Your task to perform on an android device: check data usage Image 0: 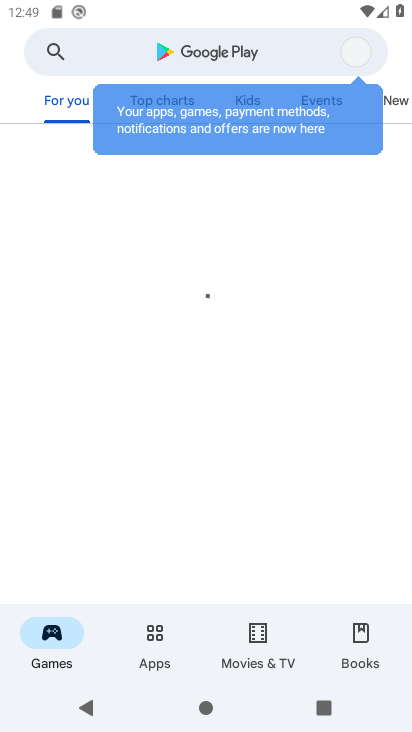
Step 0: press home button
Your task to perform on an android device: check data usage Image 1: 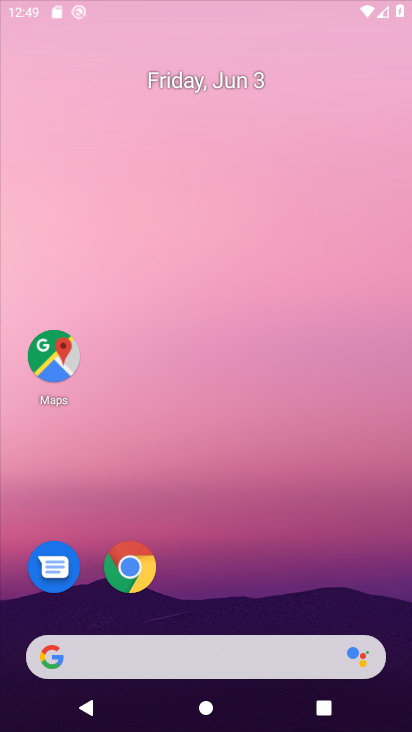
Step 1: click (258, 176)
Your task to perform on an android device: check data usage Image 2: 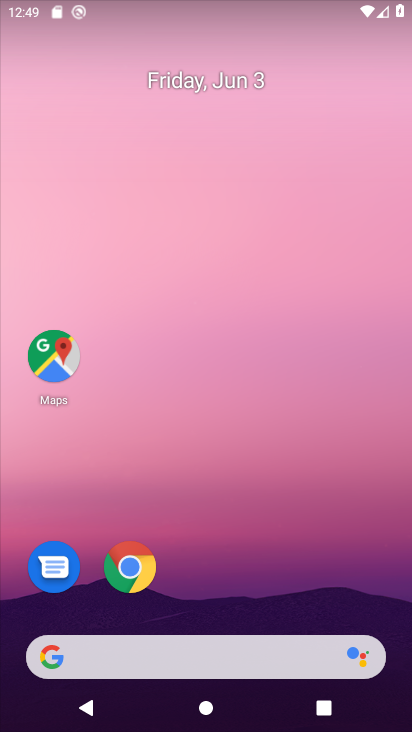
Step 2: drag from (213, 666) to (210, 262)
Your task to perform on an android device: check data usage Image 3: 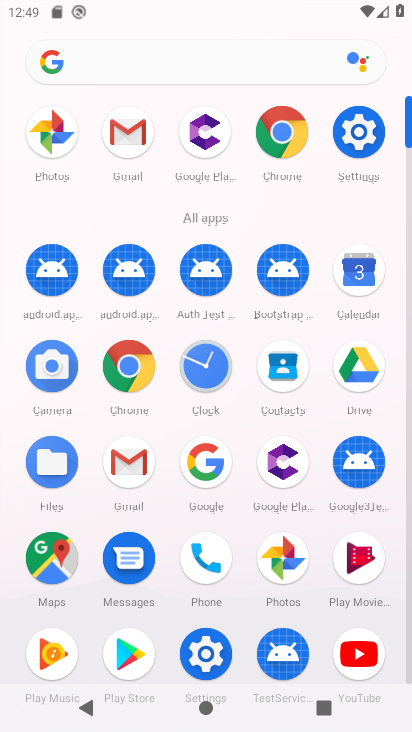
Step 3: click (352, 123)
Your task to perform on an android device: check data usage Image 4: 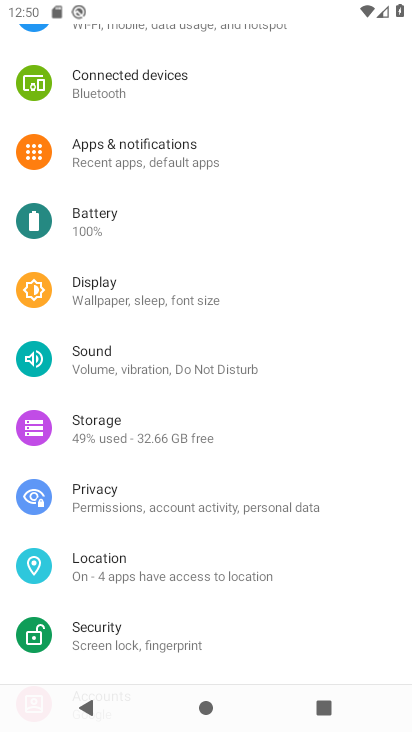
Step 4: drag from (169, 84) to (240, 533)
Your task to perform on an android device: check data usage Image 5: 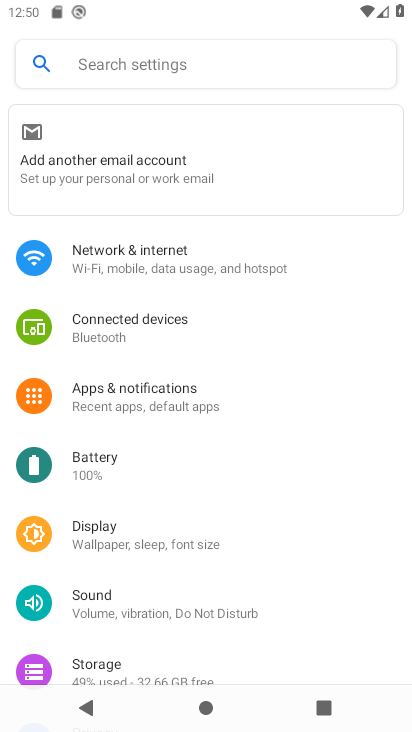
Step 5: click (222, 274)
Your task to perform on an android device: check data usage Image 6: 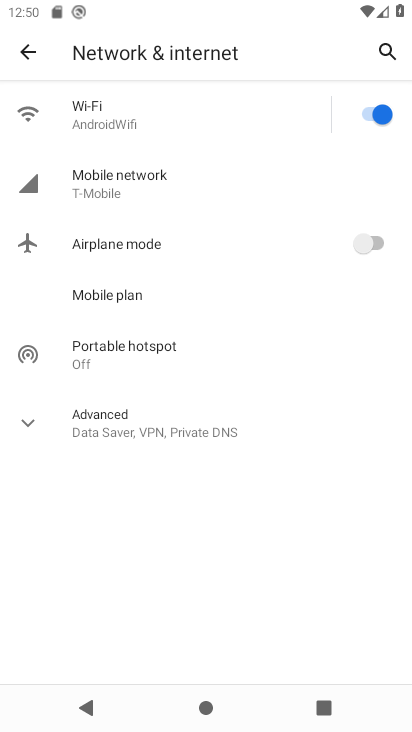
Step 6: click (132, 181)
Your task to perform on an android device: check data usage Image 7: 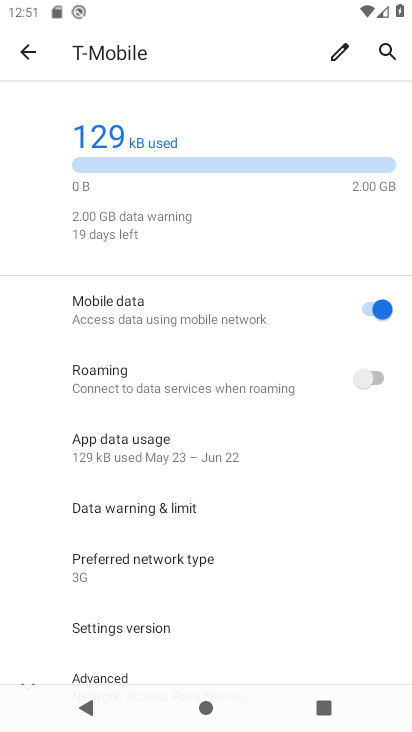
Step 7: task complete